Your task to perform on an android device: Open Google Image 0: 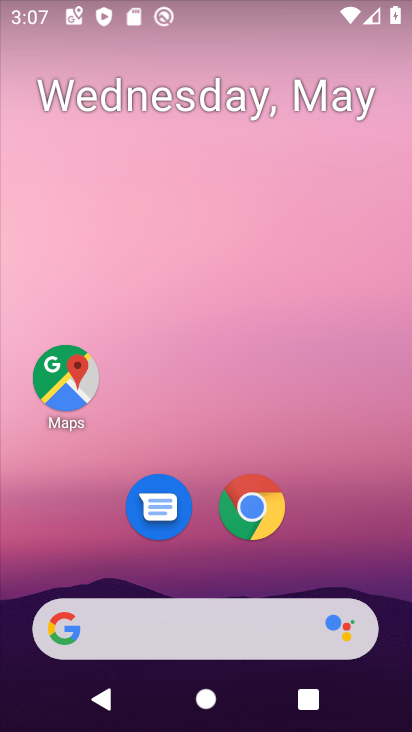
Step 0: drag from (166, 527) to (269, 84)
Your task to perform on an android device: Open Google Image 1: 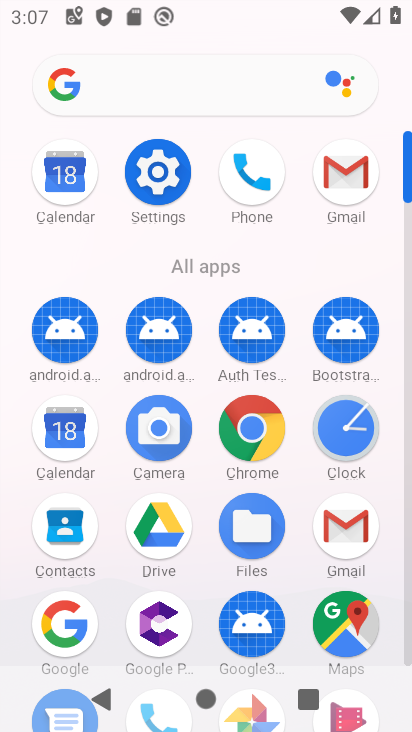
Step 1: click (59, 627)
Your task to perform on an android device: Open Google Image 2: 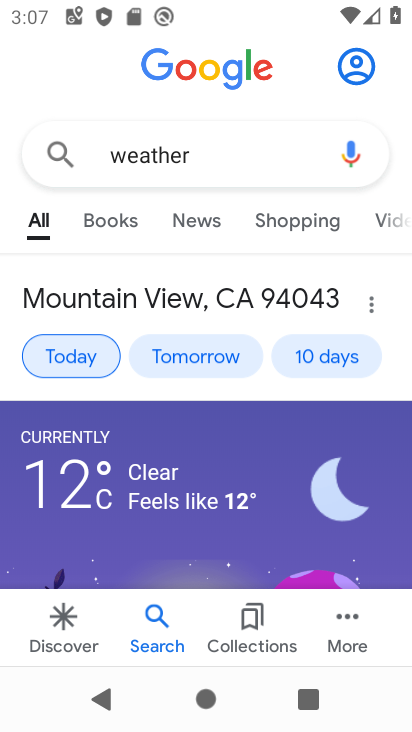
Step 2: task complete